Your task to perform on an android device: Check the weather Image 0: 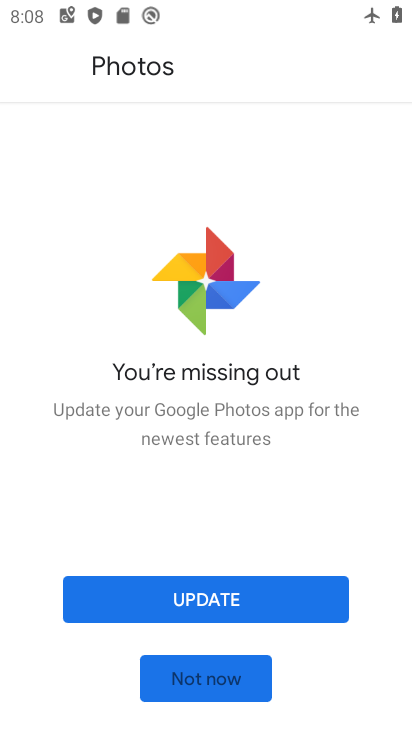
Step 0: press home button
Your task to perform on an android device: Check the weather Image 1: 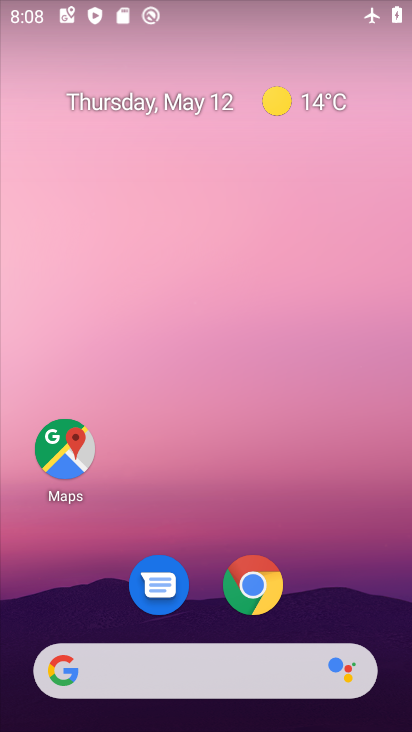
Step 1: click (306, 101)
Your task to perform on an android device: Check the weather Image 2: 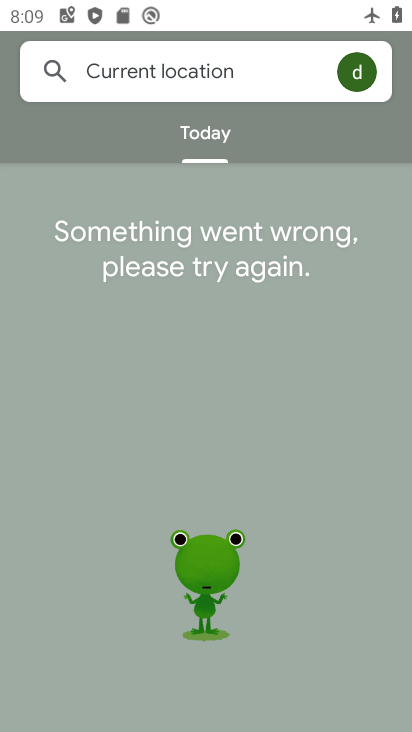
Step 2: task complete